Your task to perform on an android device: Show me the alarms in the clock app Image 0: 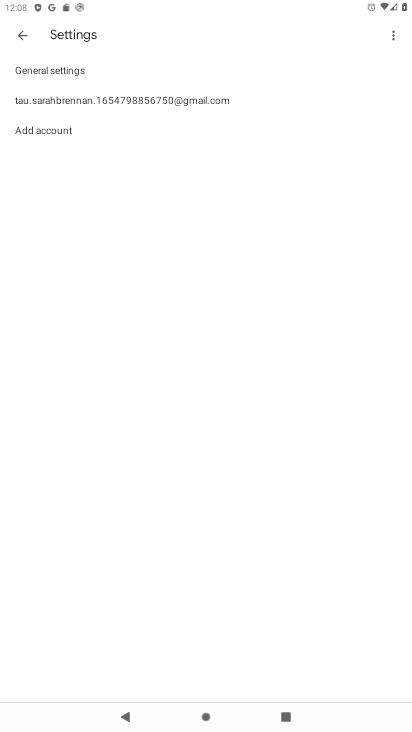
Step 0: press home button
Your task to perform on an android device: Show me the alarms in the clock app Image 1: 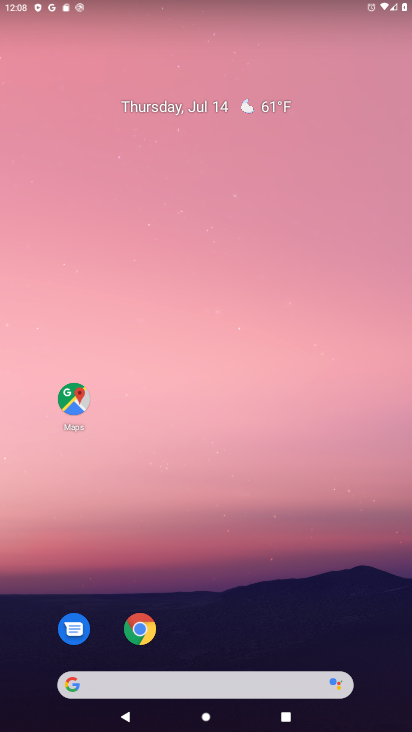
Step 1: drag from (210, 680) to (198, 318)
Your task to perform on an android device: Show me the alarms in the clock app Image 2: 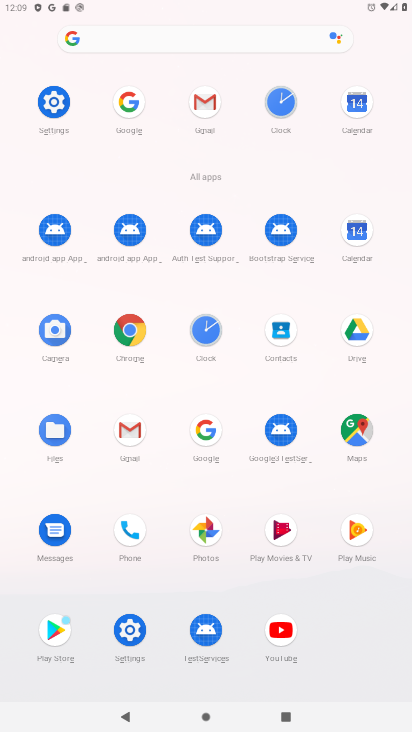
Step 2: click (280, 103)
Your task to perform on an android device: Show me the alarms in the clock app Image 3: 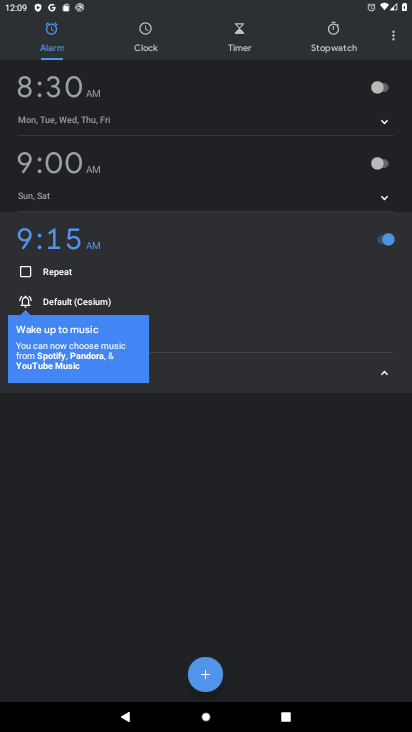
Step 3: click (202, 673)
Your task to perform on an android device: Show me the alarms in the clock app Image 4: 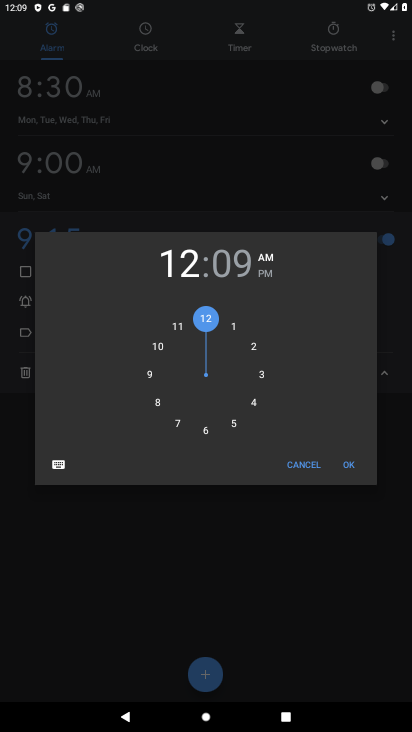
Step 4: click (179, 422)
Your task to perform on an android device: Show me the alarms in the clock app Image 5: 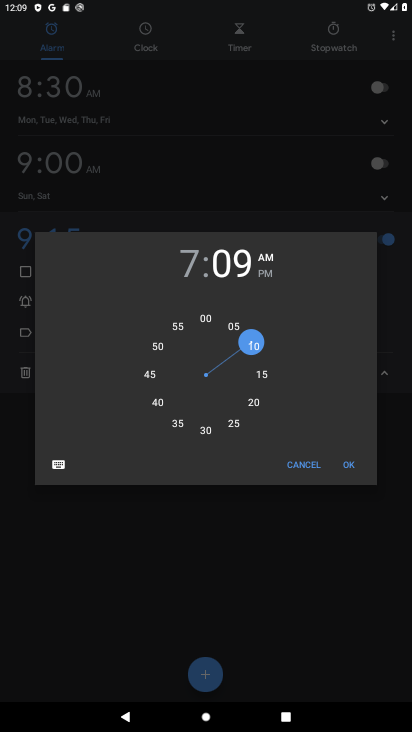
Step 5: click (235, 327)
Your task to perform on an android device: Show me the alarms in the clock app Image 6: 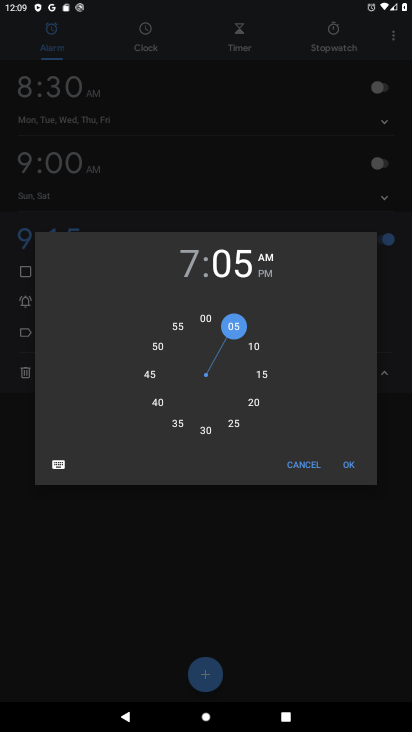
Step 6: click (346, 460)
Your task to perform on an android device: Show me the alarms in the clock app Image 7: 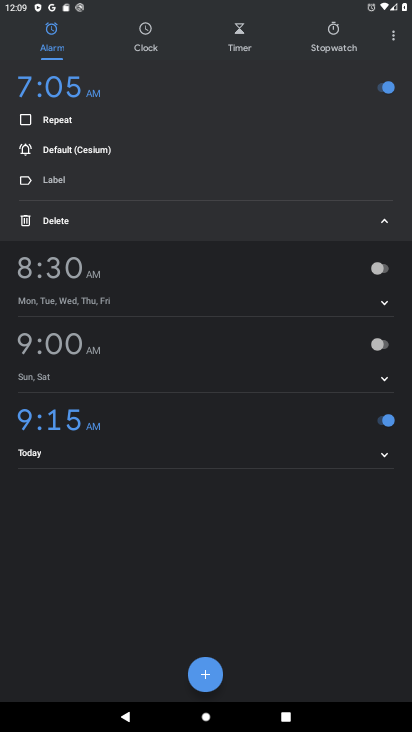
Step 7: task complete